Your task to perform on an android device: find which apps use the phone's location Image 0: 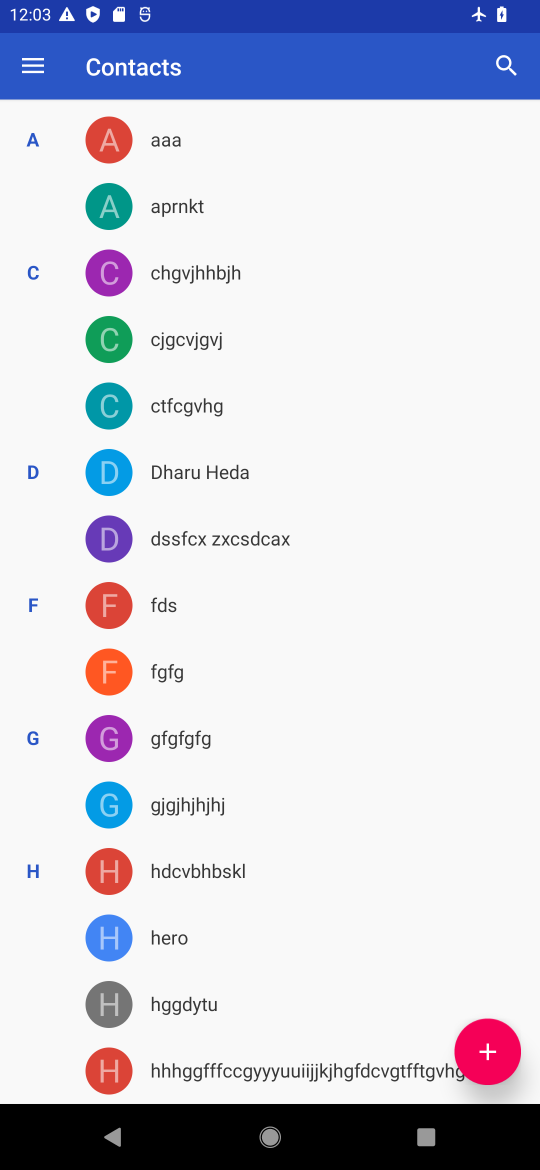
Step 0: press home button
Your task to perform on an android device: find which apps use the phone's location Image 1: 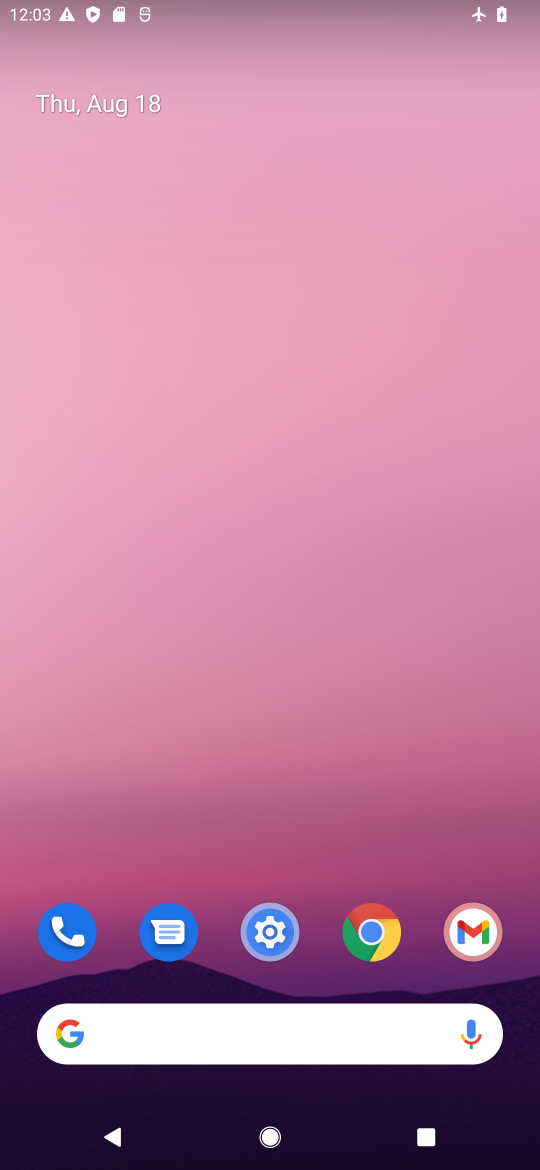
Step 1: drag from (214, 986) to (232, 274)
Your task to perform on an android device: find which apps use the phone's location Image 2: 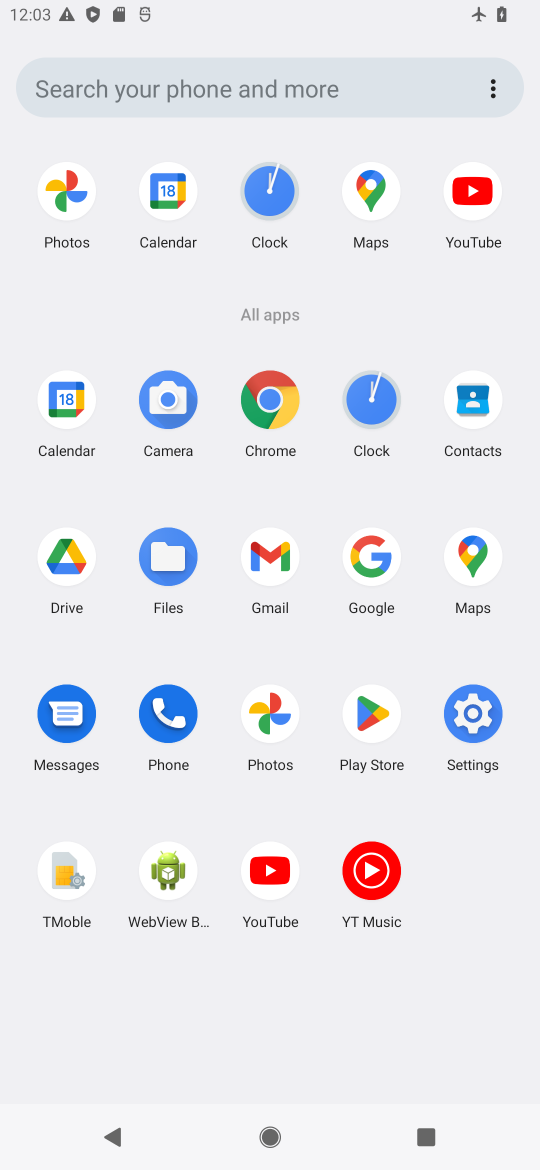
Step 2: click (471, 709)
Your task to perform on an android device: find which apps use the phone's location Image 3: 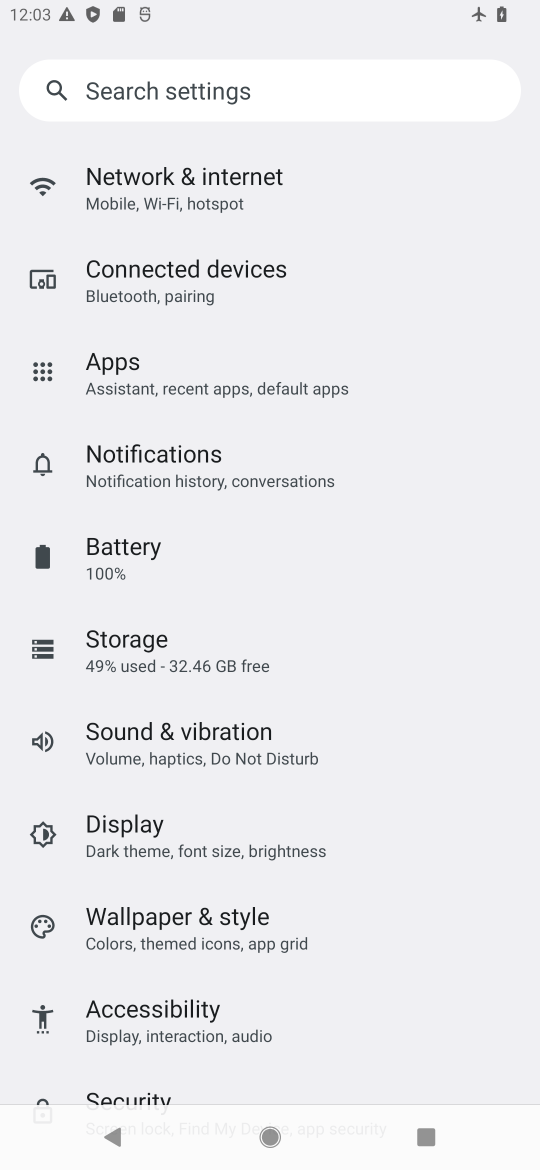
Step 3: drag from (339, 945) to (337, 329)
Your task to perform on an android device: find which apps use the phone's location Image 4: 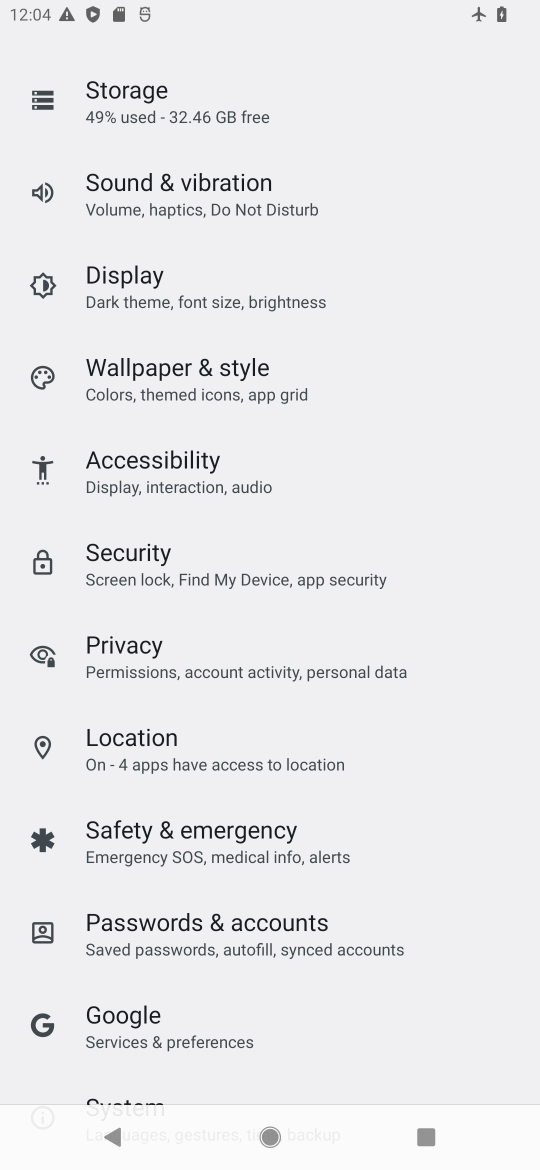
Step 4: click (145, 733)
Your task to perform on an android device: find which apps use the phone's location Image 5: 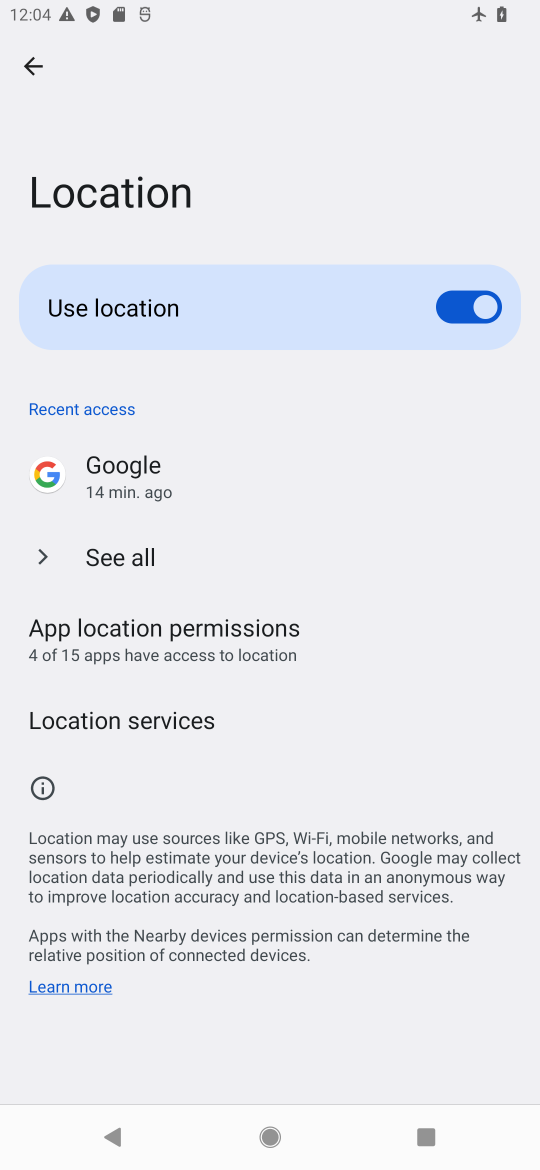
Step 5: click (129, 558)
Your task to perform on an android device: find which apps use the phone's location Image 6: 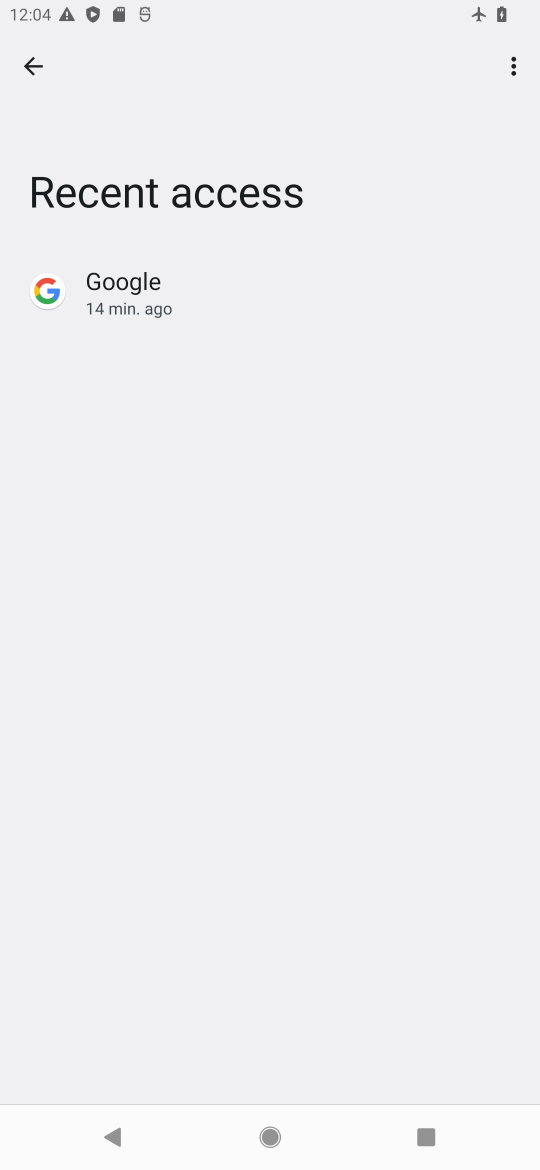
Step 6: task complete